Your task to perform on an android device: Open Google Chrome and click the shortcut for Amazon.com Image 0: 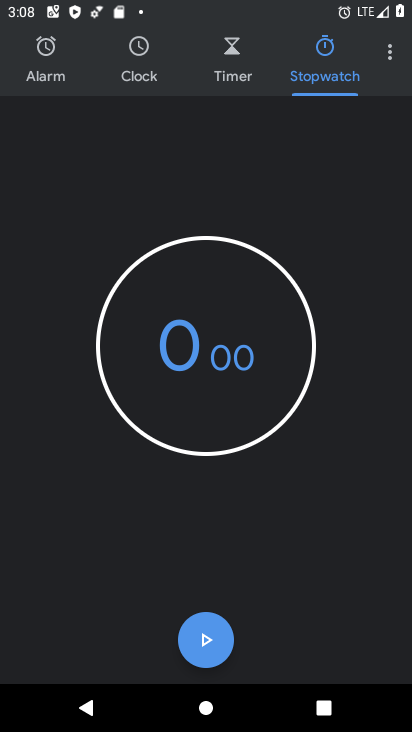
Step 0: press home button
Your task to perform on an android device: Open Google Chrome and click the shortcut for Amazon.com Image 1: 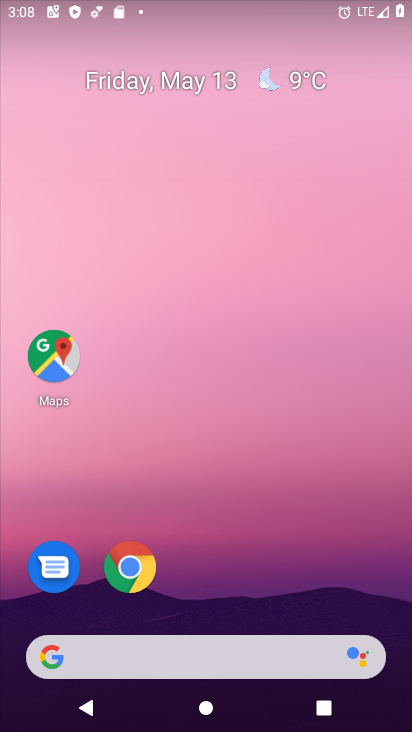
Step 1: drag from (234, 598) to (310, 27)
Your task to perform on an android device: Open Google Chrome and click the shortcut for Amazon.com Image 2: 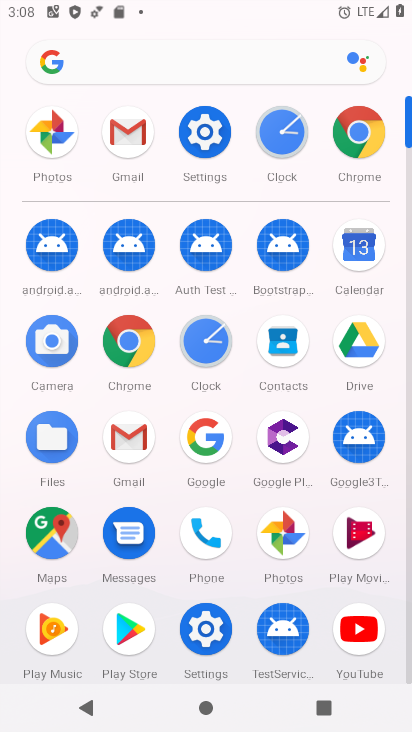
Step 2: click (141, 351)
Your task to perform on an android device: Open Google Chrome and click the shortcut for Amazon.com Image 3: 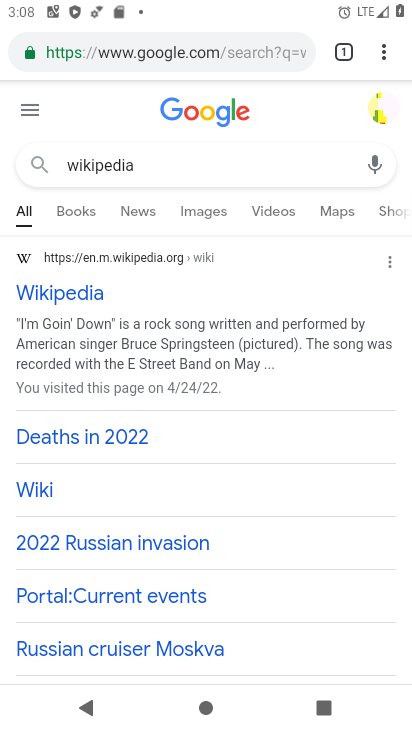
Step 3: click (393, 53)
Your task to perform on an android device: Open Google Chrome and click the shortcut for Amazon.com Image 4: 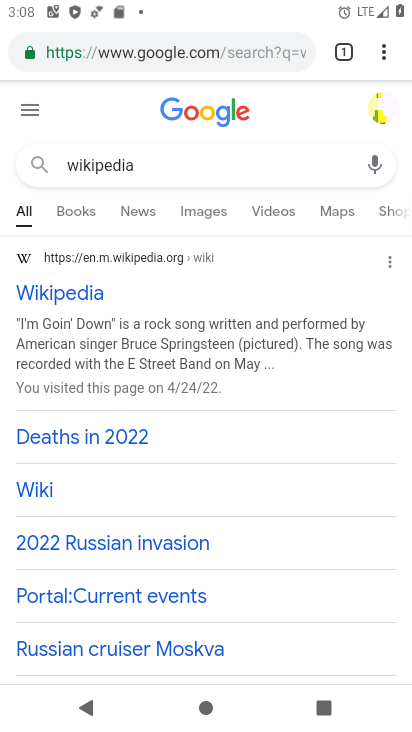
Step 4: click (351, 52)
Your task to perform on an android device: Open Google Chrome and click the shortcut for Amazon.com Image 5: 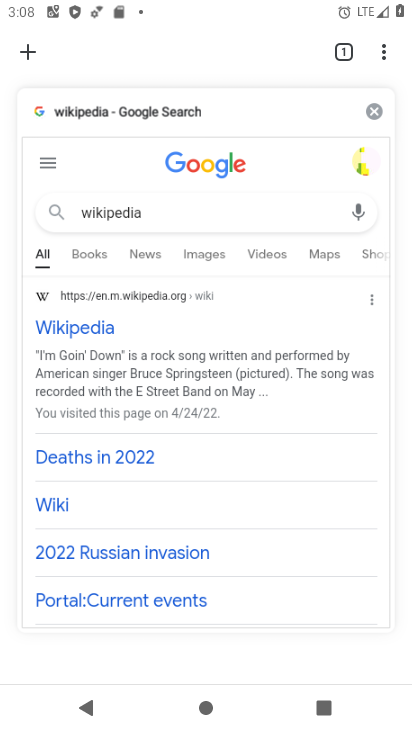
Step 5: click (28, 45)
Your task to perform on an android device: Open Google Chrome and click the shortcut for Amazon.com Image 6: 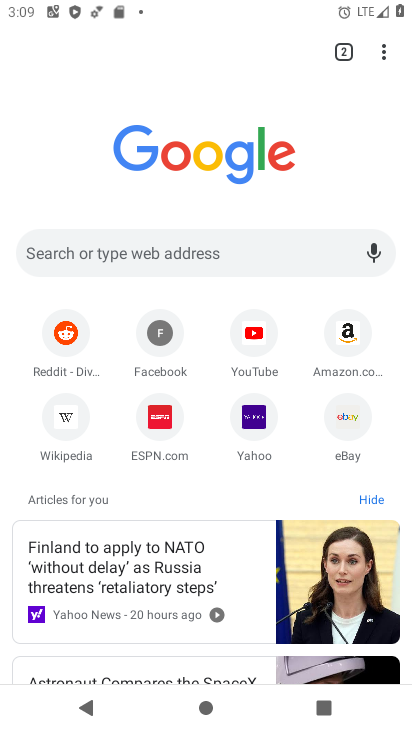
Step 6: click (341, 342)
Your task to perform on an android device: Open Google Chrome and click the shortcut for Amazon.com Image 7: 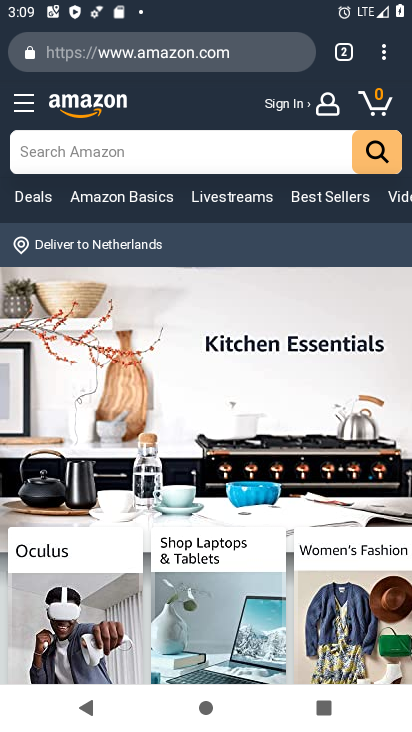
Step 7: task complete